Your task to perform on an android device: delete browsing data in the chrome app Image 0: 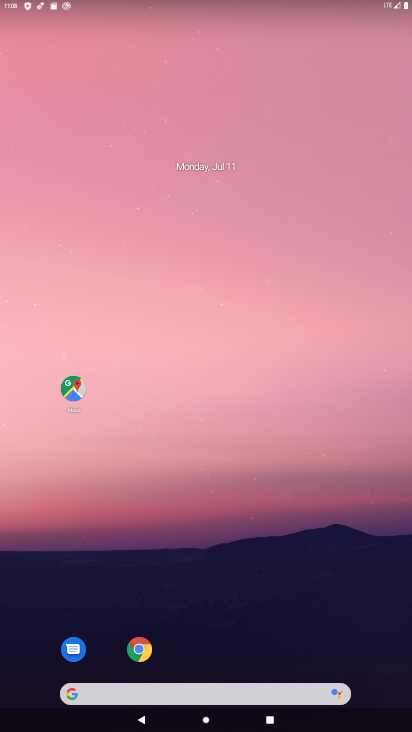
Step 0: drag from (290, 579) to (182, 114)
Your task to perform on an android device: delete browsing data in the chrome app Image 1: 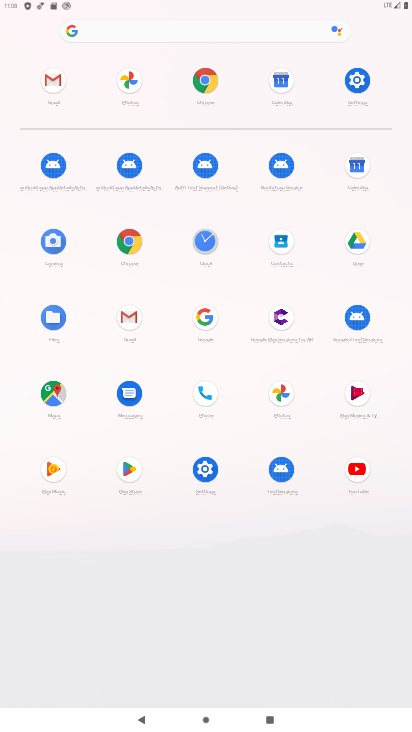
Step 1: click (136, 241)
Your task to perform on an android device: delete browsing data in the chrome app Image 2: 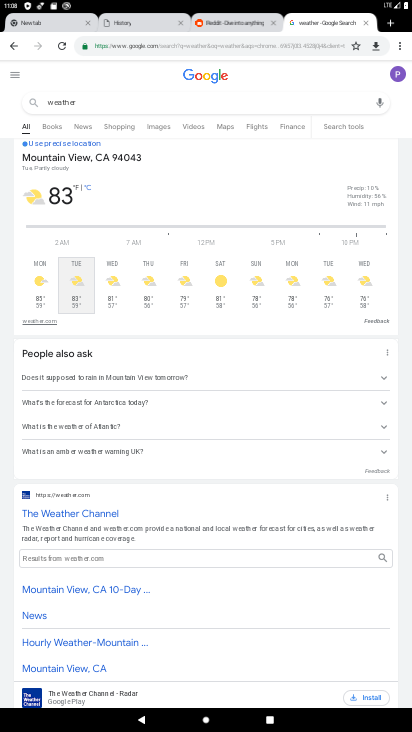
Step 2: drag from (402, 37) to (305, 142)
Your task to perform on an android device: delete browsing data in the chrome app Image 3: 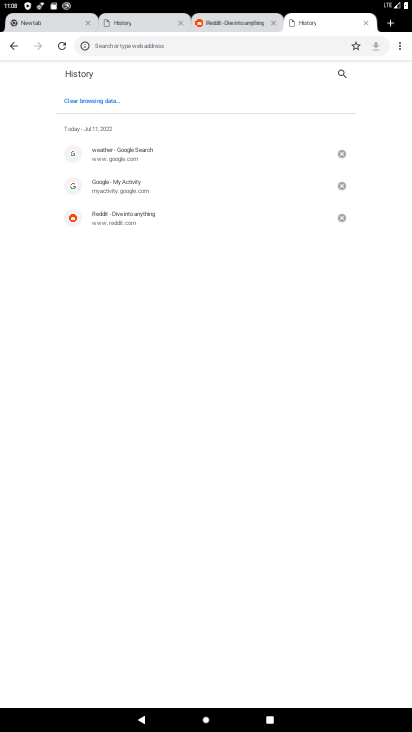
Step 3: click (113, 97)
Your task to perform on an android device: delete browsing data in the chrome app Image 4: 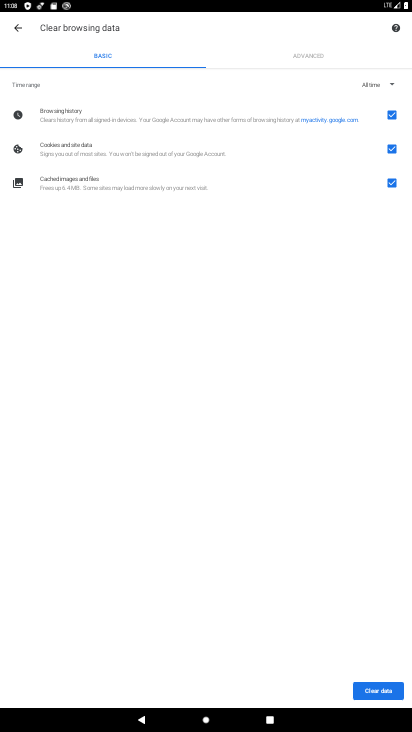
Step 4: click (390, 691)
Your task to perform on an android device: delete browsing data in the chrome app Image 5: 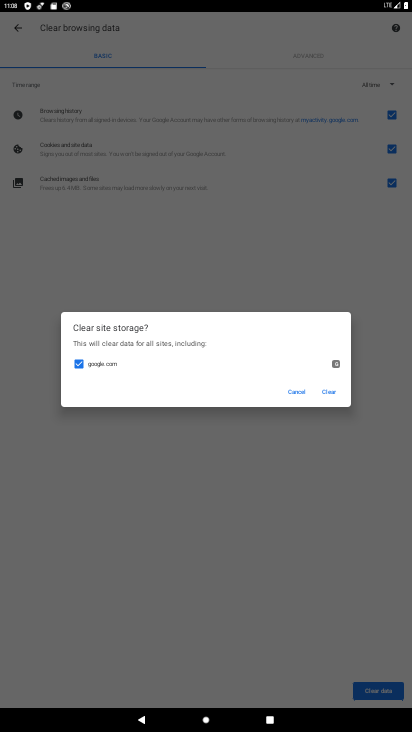
Step 5: click (329, 392)
Your task to perform on an android device: delete browsing data in the chrome app Image 6: 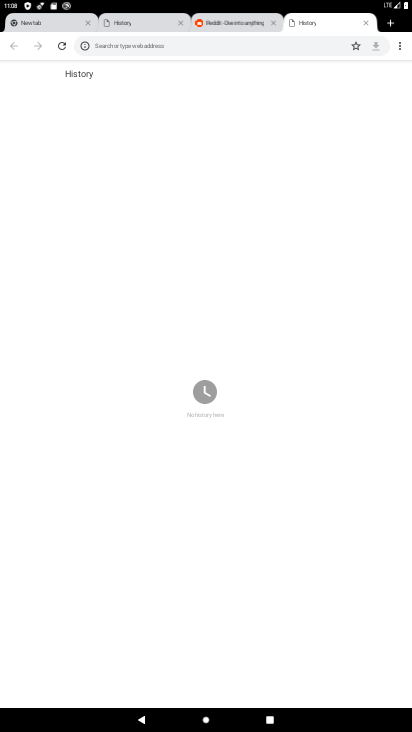
Step 6: task complete